Your task to perform on an android device: turn vacation reply on in the gmail app Image 0: 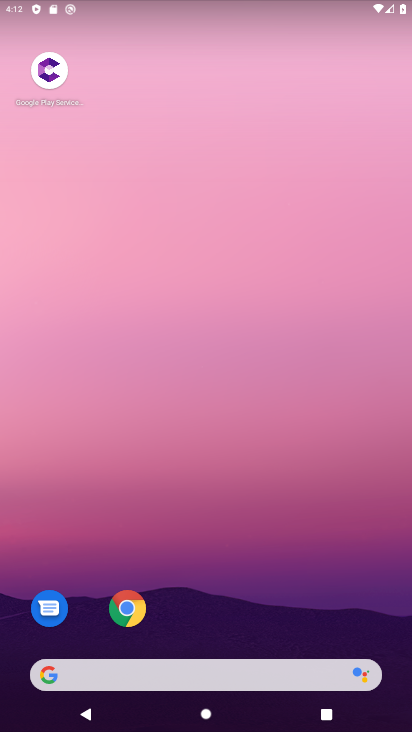
Step 0: drag from (214, 624) to (137, 124)
Your task to perform on an android device: turn vacation reply on in the gmail app Image 1: 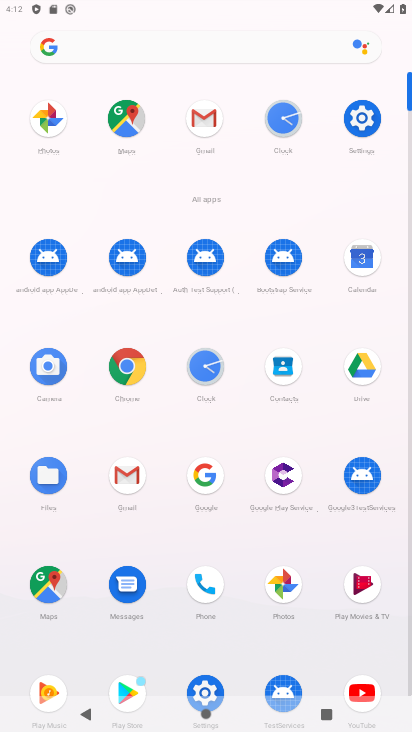
Step 1: click (202, 118)
Your task to perform on an android device: turn vacation reply on in the gmail app Image 2: 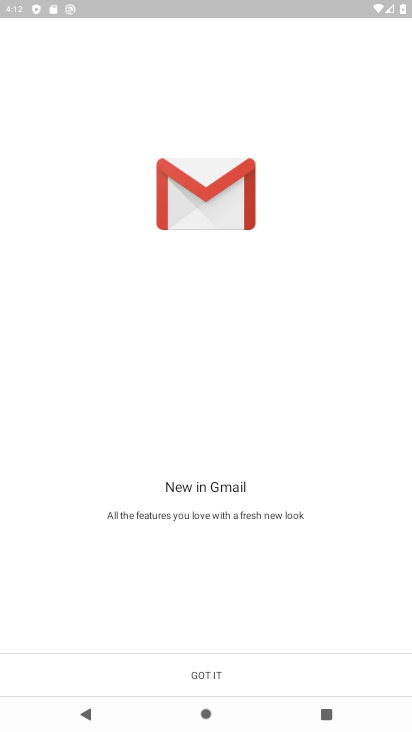
Step 2: click (199, 680)
Your task to perform on an android device: turn vacation reply on in the gmail app Image 3: 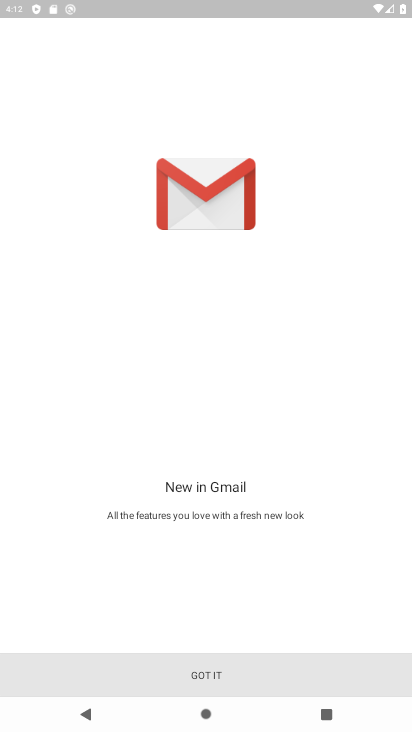
Step 3: click (199, 680)
Your task to perform on an android device: turn vacation reply on in the gmail app Image 4: 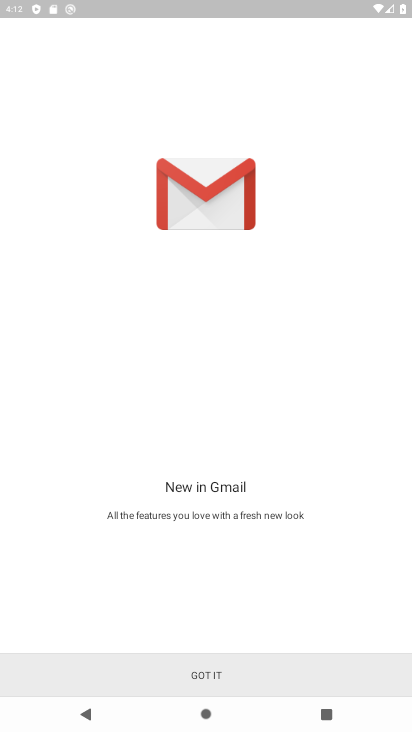
Step 4: click (199, 680)
Your task to perform on an android device: turn vacation reply on in the gmail app Image 5: 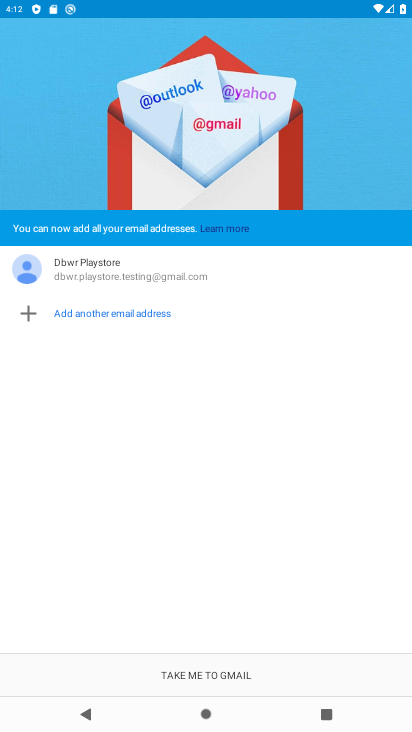
Step 5: click (199, 680)
Your task to perform on an android device: turn vacation reply on in the gmail app Image 6: 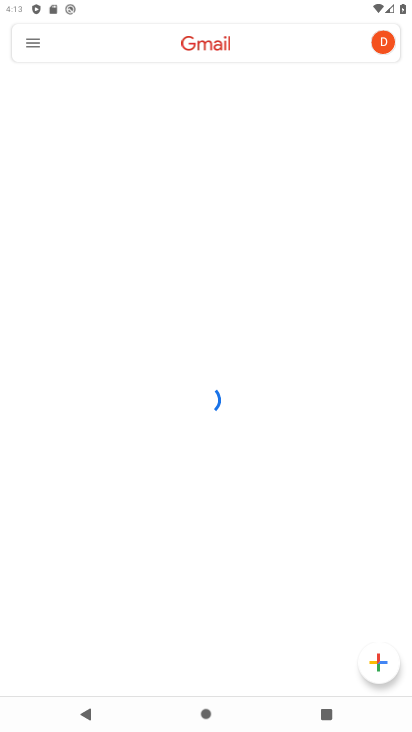
Step 6: click (32, 39)
Your task to perform on an android device: turn vacation reply on in the gmail app Image 7: 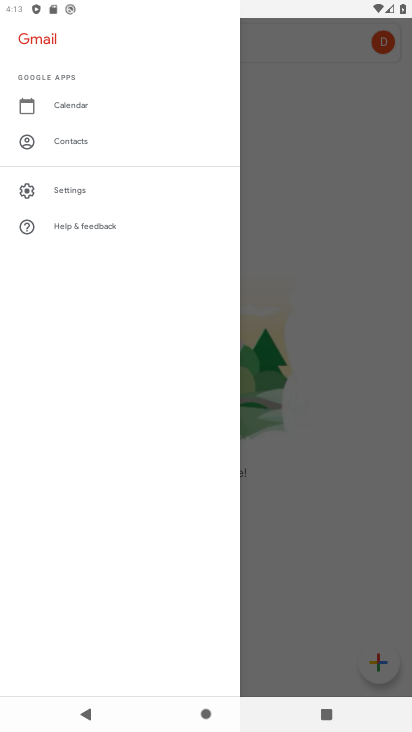
Step 7: click (86, 194)
Your task to perform on an android device: turn vacation reply on in the gmail app Image 8: 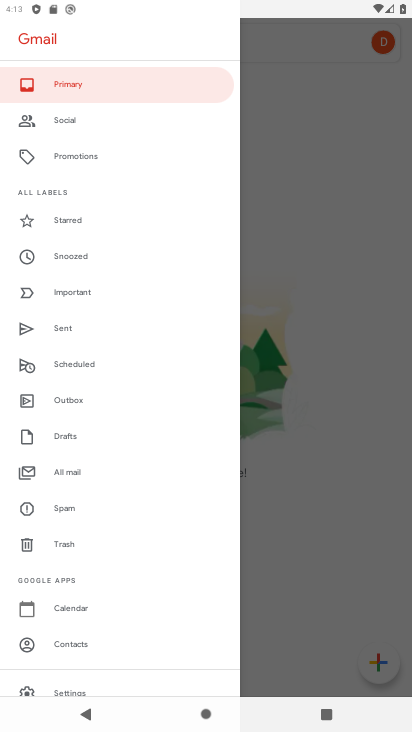
Step 8: drag from (97, 649) to (97, 285)
Your task to perform on an android device: turn vacation reply on in the gmail app Image 9: 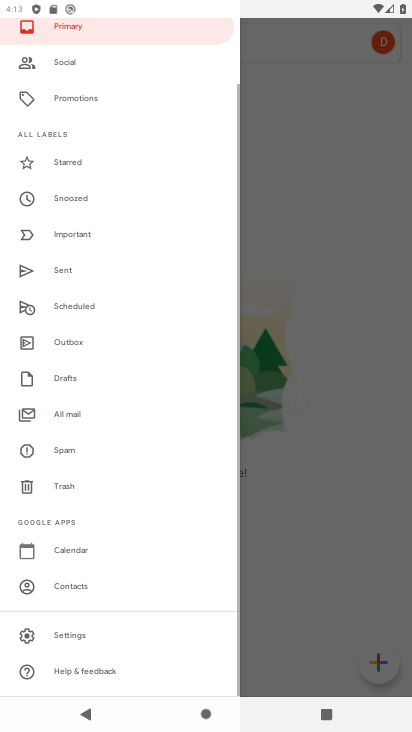
Step 9: click (85, 643)
Your task to perform on an android device: turn vacation reply on in the gmail app Image 10: 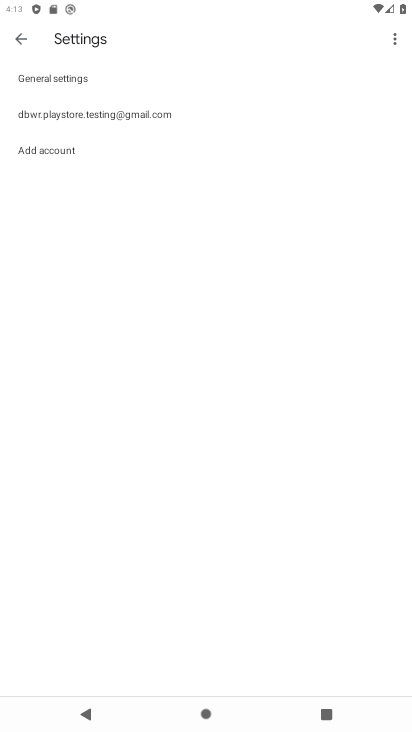
Step 10: click (163, 111)
Your task to perform on an android device: turn vacation reply on in the gmail app Image 11: 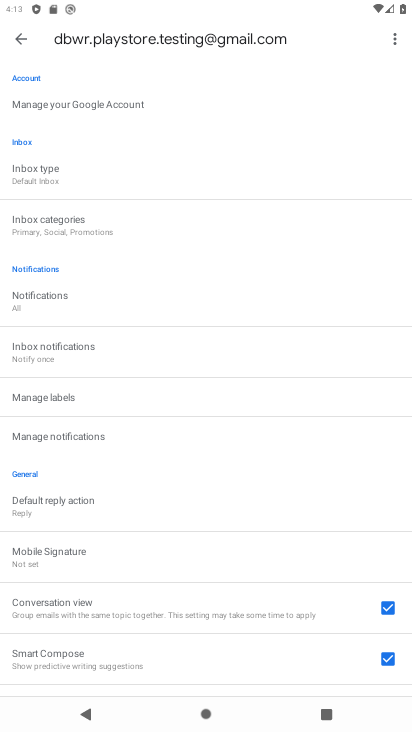
Step 11: drag from (145, 632) to (132, 345)
Your task to perform on an android device: turn vacation reply on in the gmail app Image 12: 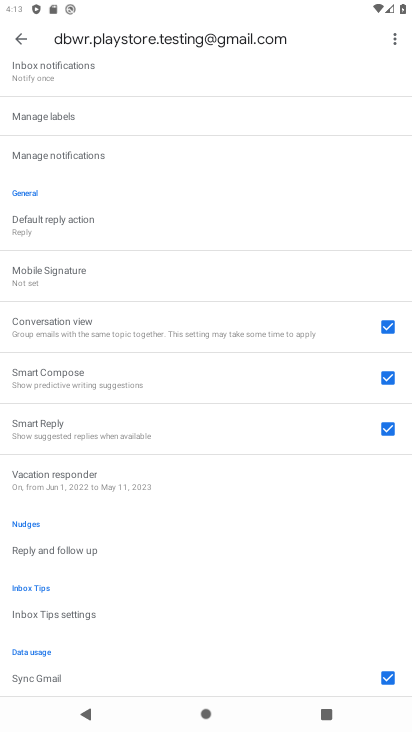
Step 12: click (144, 472)
Your task to perform on an android device: turn vacation reply on in the gmail app Image 13: 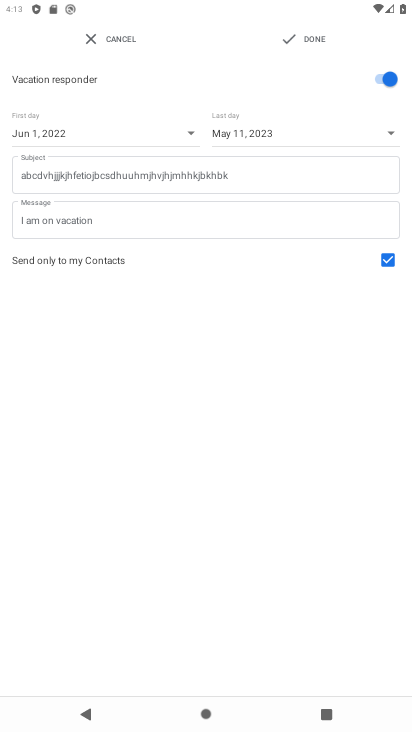
Step 13: click (320, 48)
Your task to perform on an android device: turn vacation reply on in the gmail app Image 14: 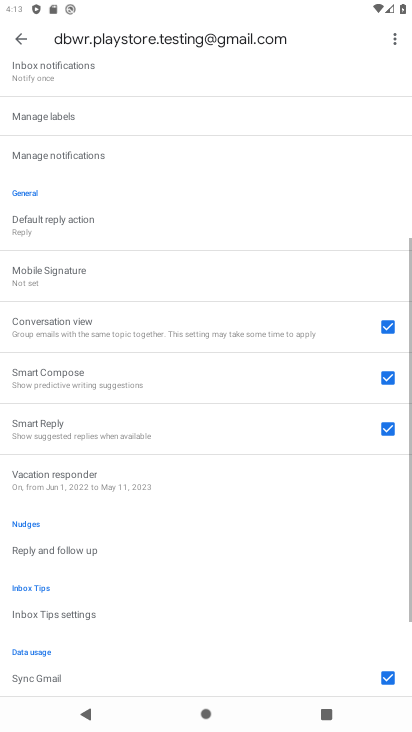
Step 14: task complete